Your task to perform on an android device: Check the weather Image 0: 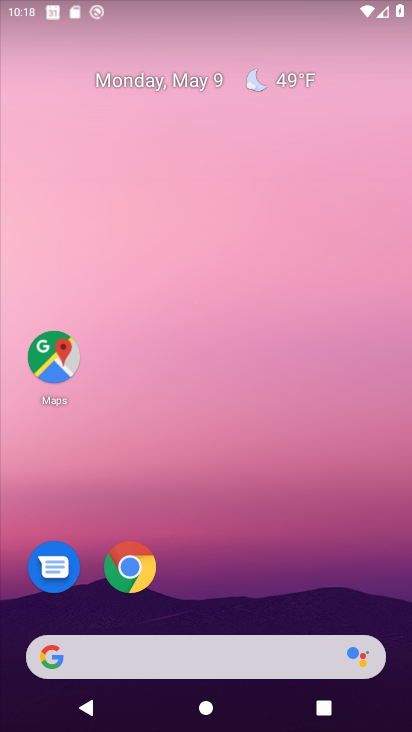
Step 0: drag from (152, 634) to (150, 241)
Your task to perform on an android device: Check the weather Image 1: 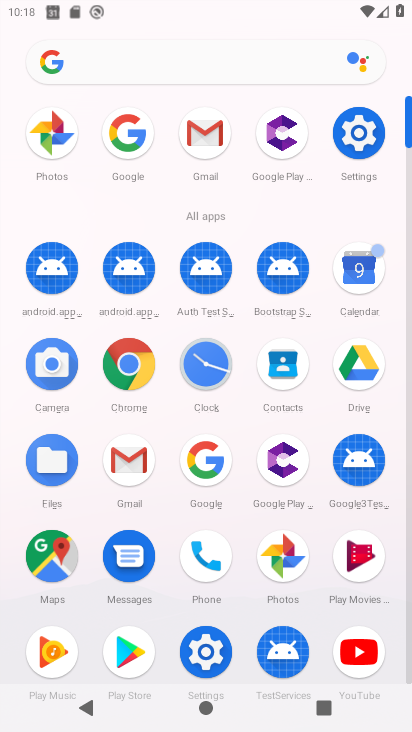
Step 1: click (195, 457)
Your task to perform on an android device: Check the weather Image 2: 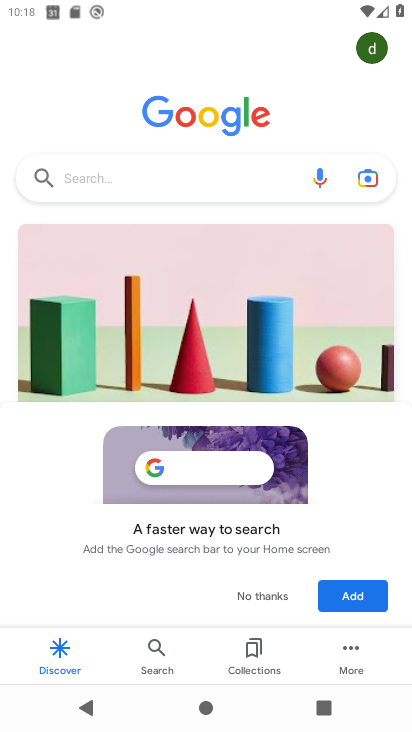
Step 2: click (141, 169)
Your task to perform on an android device: Check the weather Image 3: 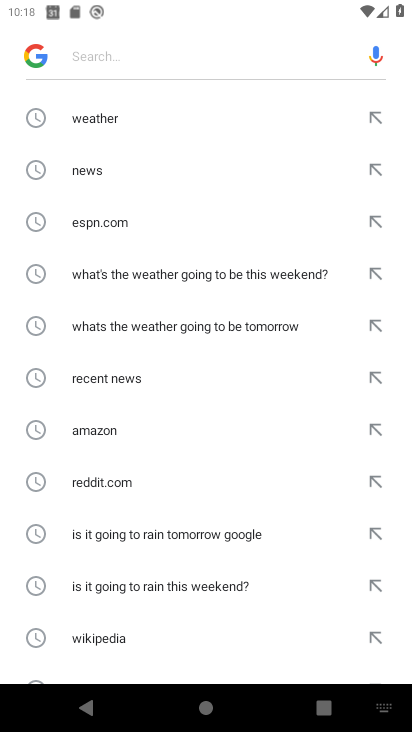
Step 3: click (89, 139)
Your task to perform on an android device: Check the weather Image 4: 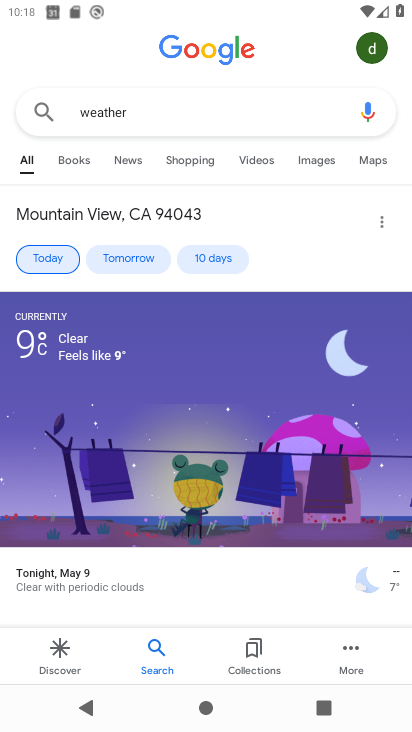
Step 4: task complete